Your task to perform on an android device: turn on notifications settings in the gmail app Image 0: 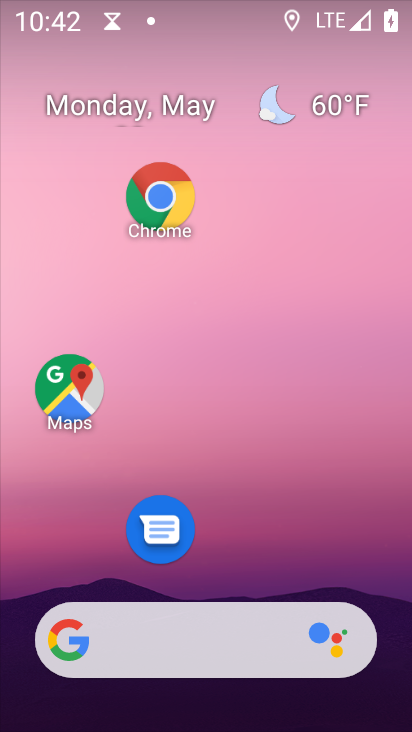
Step 0: drag from (234, 538) to (228, 0)
Your task to perform on an android device: turn on notifications settings in the gmail app Image 1: 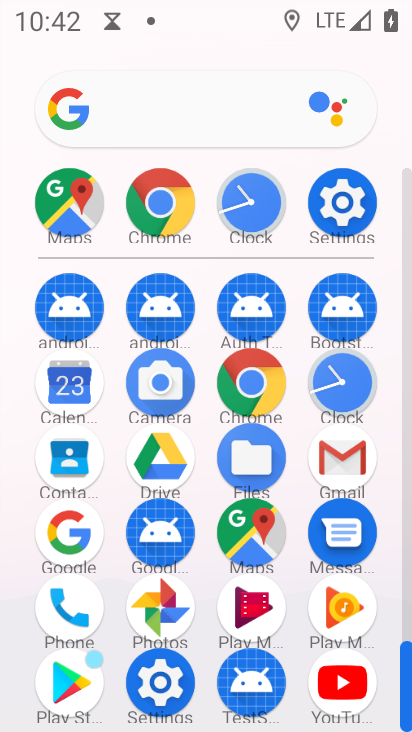
Step 1: click (349, 452)
Your task to perform on an android device: turn on notifications settings in the gmail app Image 2: 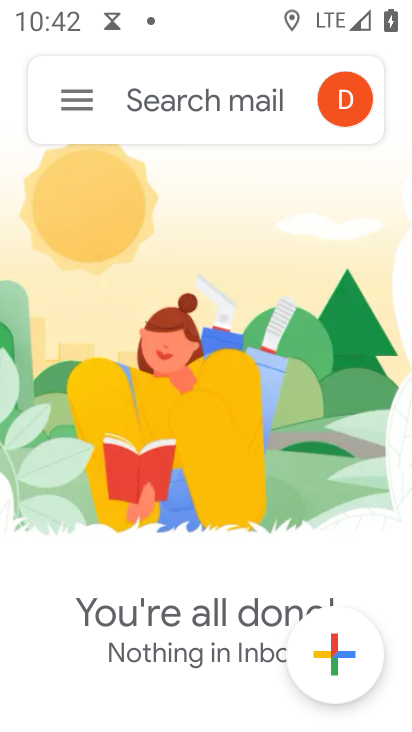
Step 2: click (79, 111)
Your task to perform on an android device: turn on notifications settings in the gmail app Image 3: 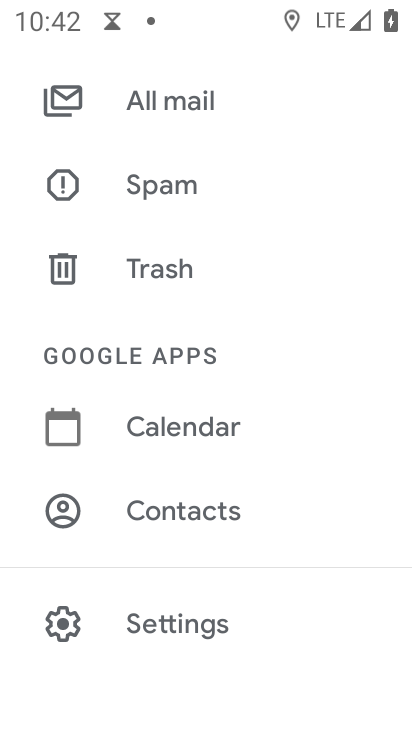
Step 3: click (156, 625)
Your task to perform on an android device: turn on notifications settings in the gmail app Image 4: 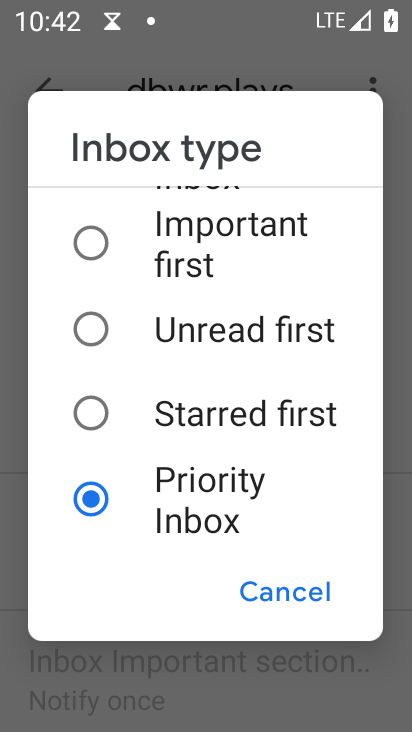
Step 4: click (284, 587)
Your task to perform on an android device: turn on notifications settings in the gmail app Image 5: 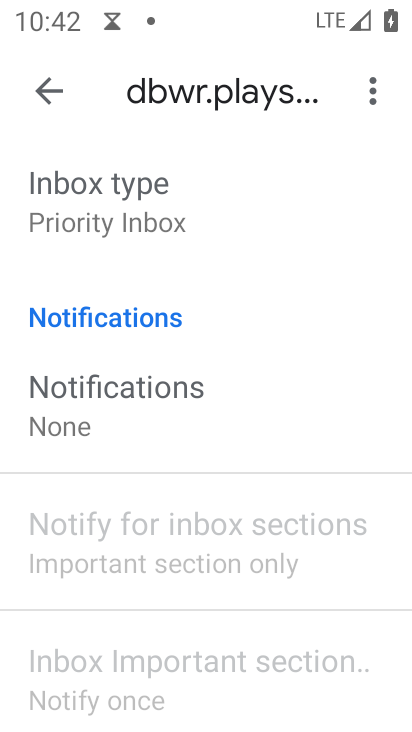
Step 5: click (152, 424)
Your task to perform on an android device: turn on notifications settings in the gmail app Image 6: 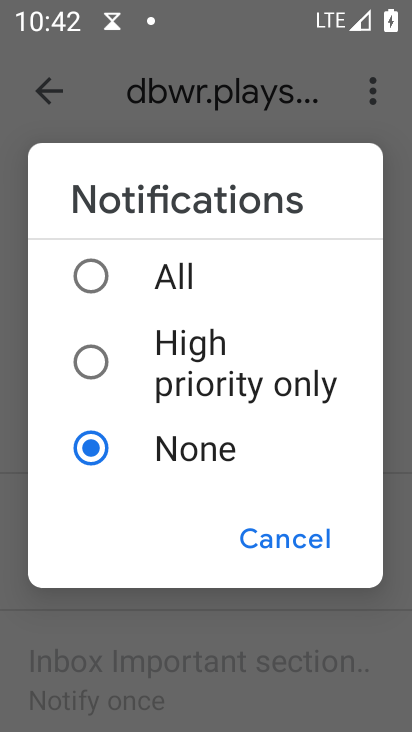
Step 6: click (92, 277)
Your task to perform on an android device: turn on notifications settings in the gmail app Image 7: 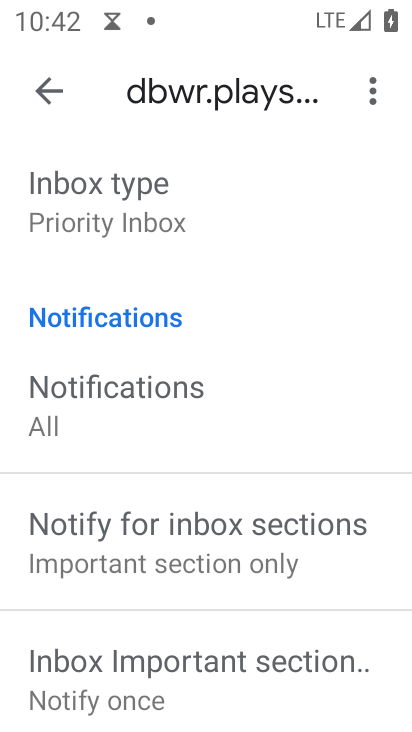
Step 7: task complete